Your task to perform on an android device: install app "Adobe Express: Graphic Design" Image 0: 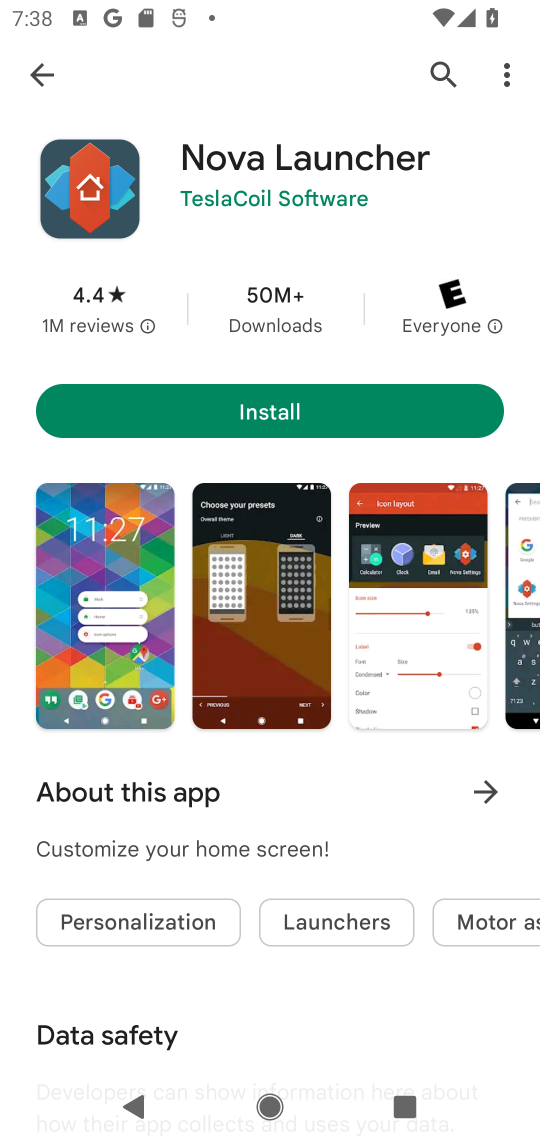
Step 0: press home button
Your task to perform on an android device: install app "Adobe Express: Graphic Design" Image 1: 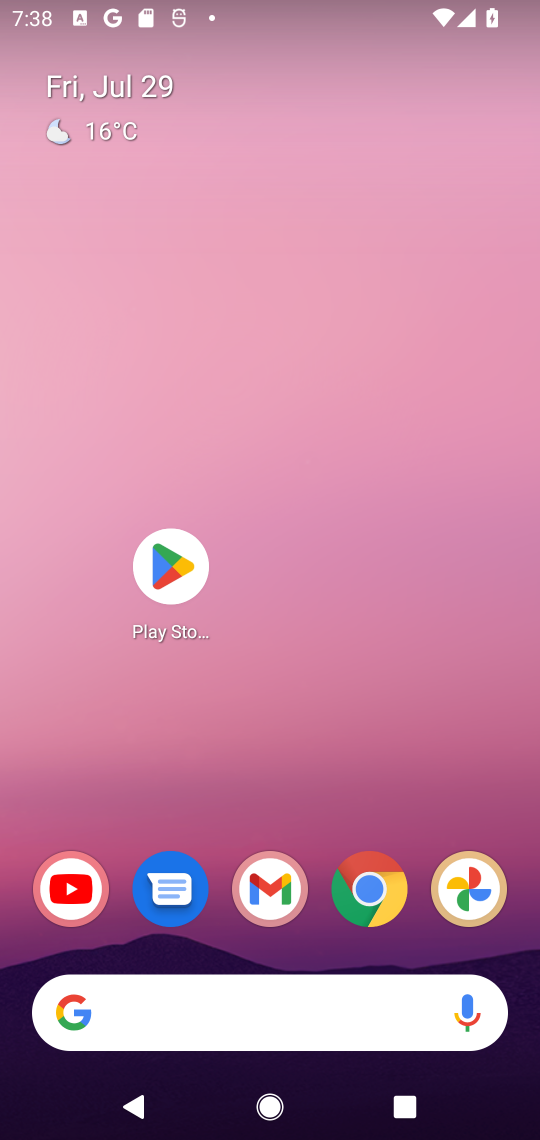
Step 1: click (175, 563)
Your task to perform on an android device: install app "Adobe Express: Graphic Design" Image 2: 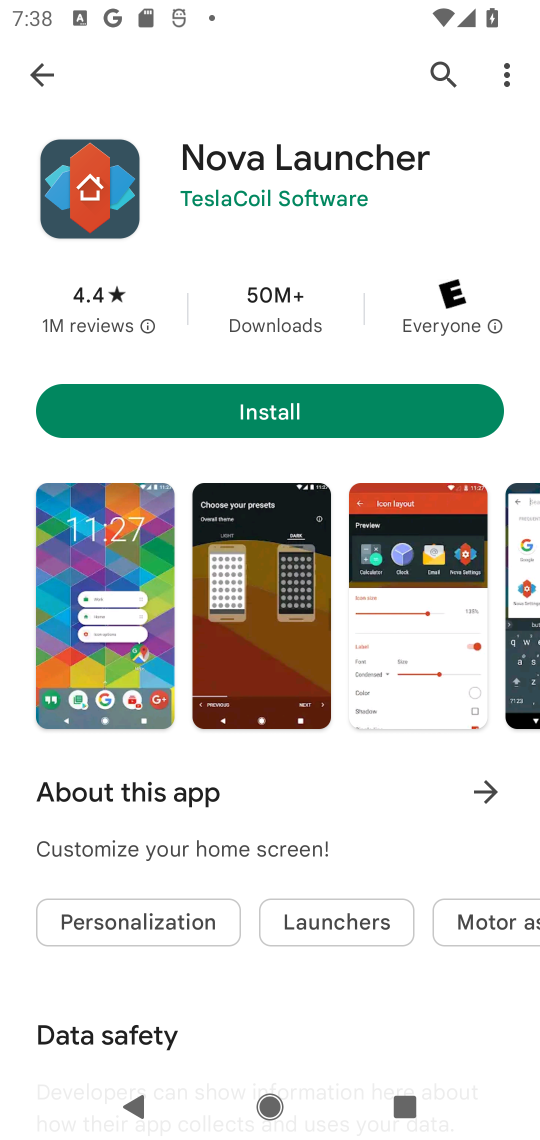
Step 2: click (432, 70)
Your task to perform on an android device: install app "Adobe Express: Graphic Design" Image 3: 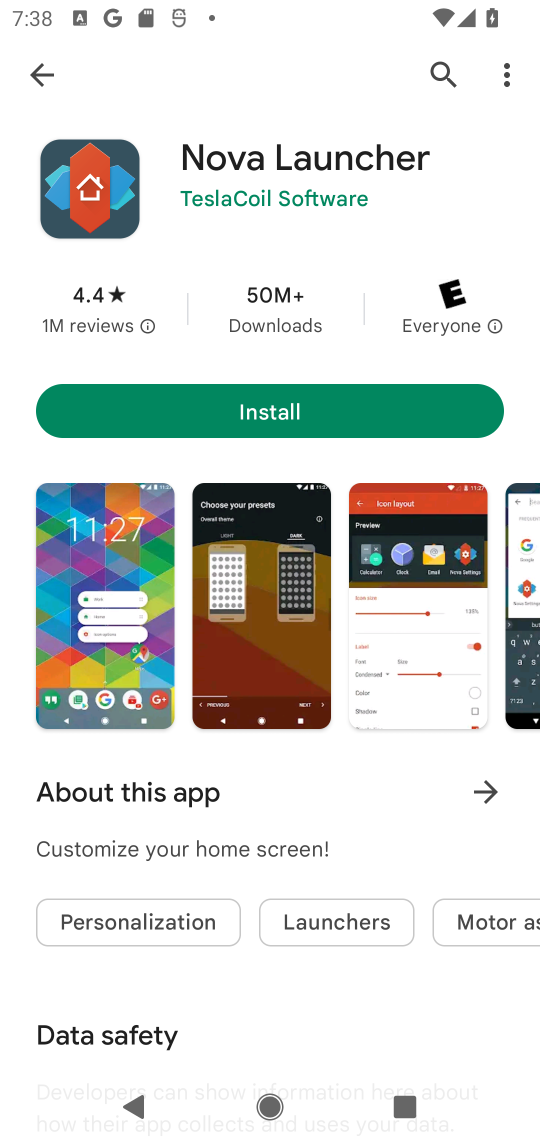
Step 3: click (439, 66)
Your task to perform on an android device: install app "Adobe Express: Graphic Design" Image 4: 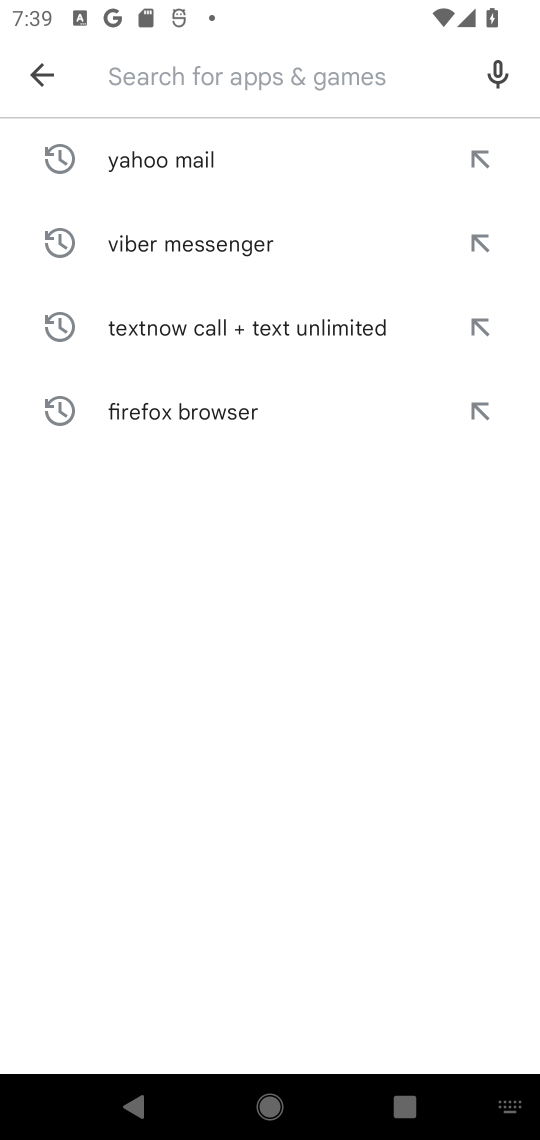
Step 4: type "Adobe Express: Graphic Design"
Your task to perform on an android device: install app "Adobe Express: Graphic Design" Image 5: 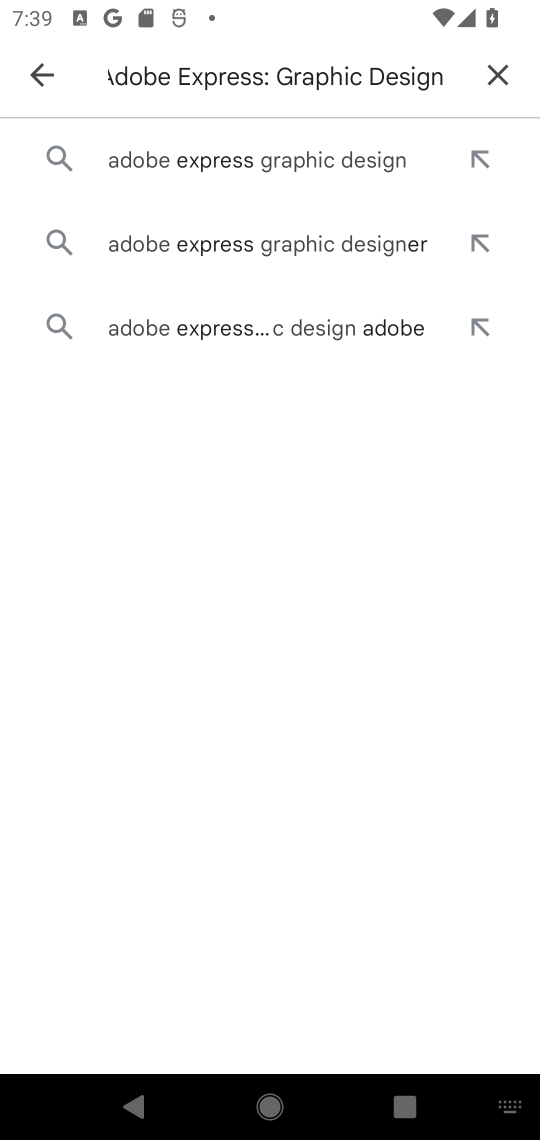
Step 5: click (228, 156)
Your task to perform on an android device: install app "Adobe Express: Graphic Design" Image 6: 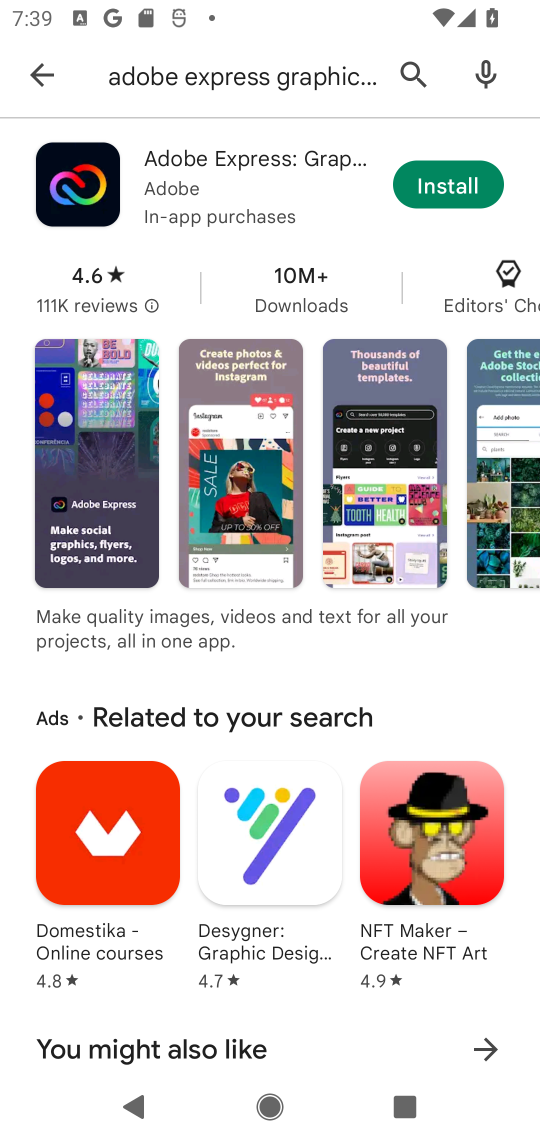
Step 6: click (450, 172)
Your task to perform on an android device: install app "Adobe Express: Graphic Design" Image 7: 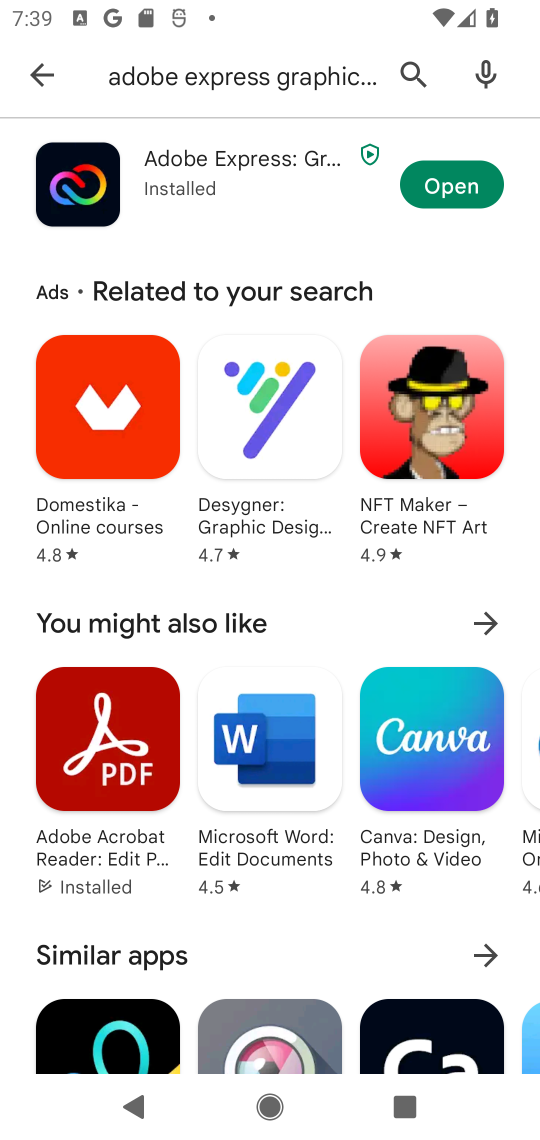
Step 7: task complete